Your task to perform on an android device: visit the assistant section in the google photos Image 0: 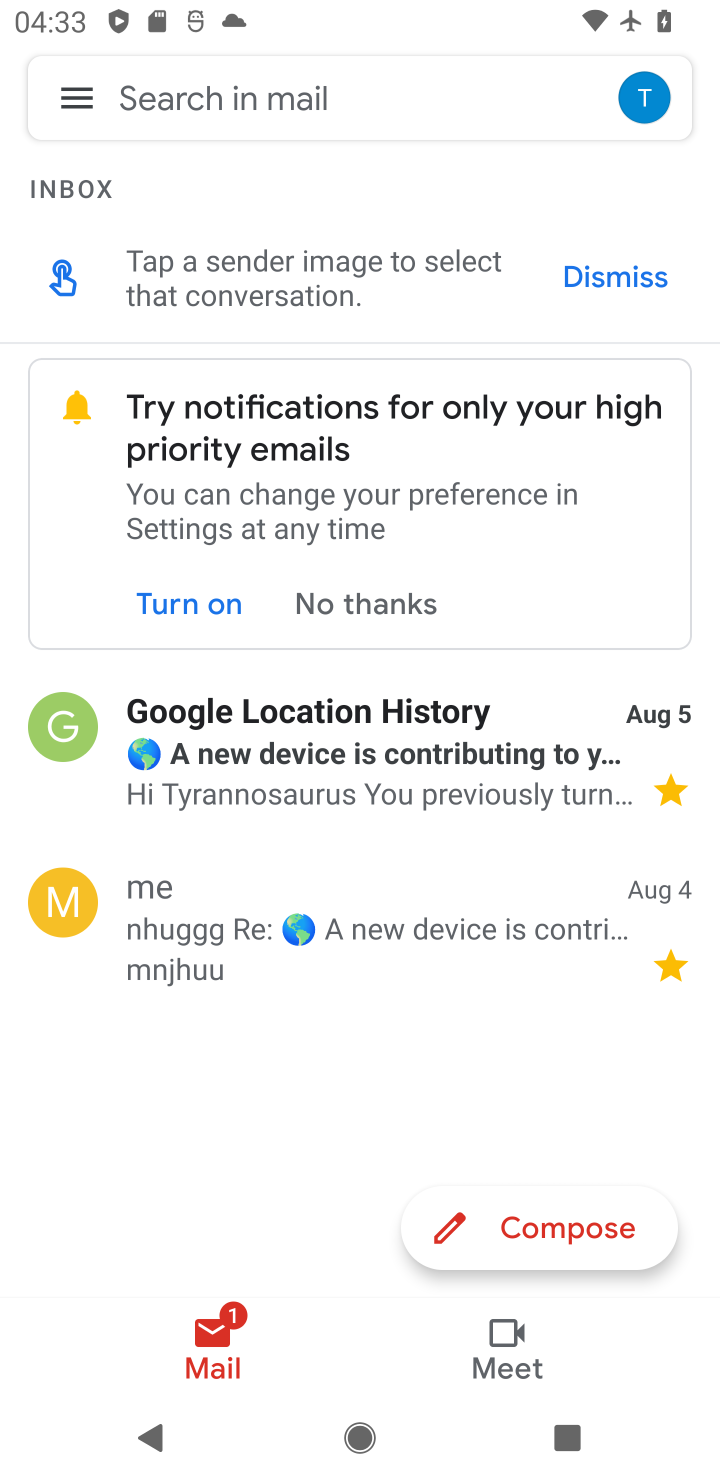
Step 0: press home button
Your task to perform on an android device: visit the assistant section in the google photos Image 1: 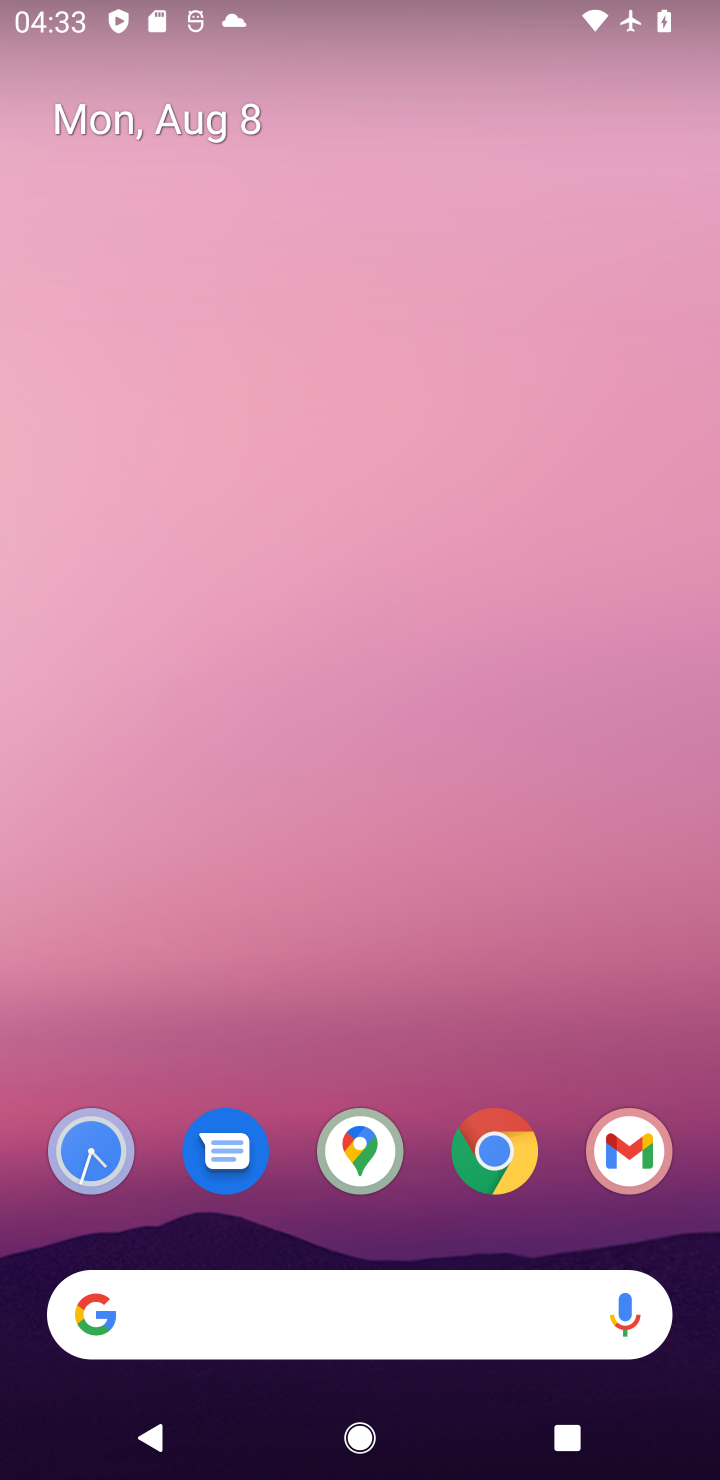
Step 1: drag from (307, 1056) to (291, 163)
Your task to perform on an android device: visit the assistant section in the google photos Image 2: 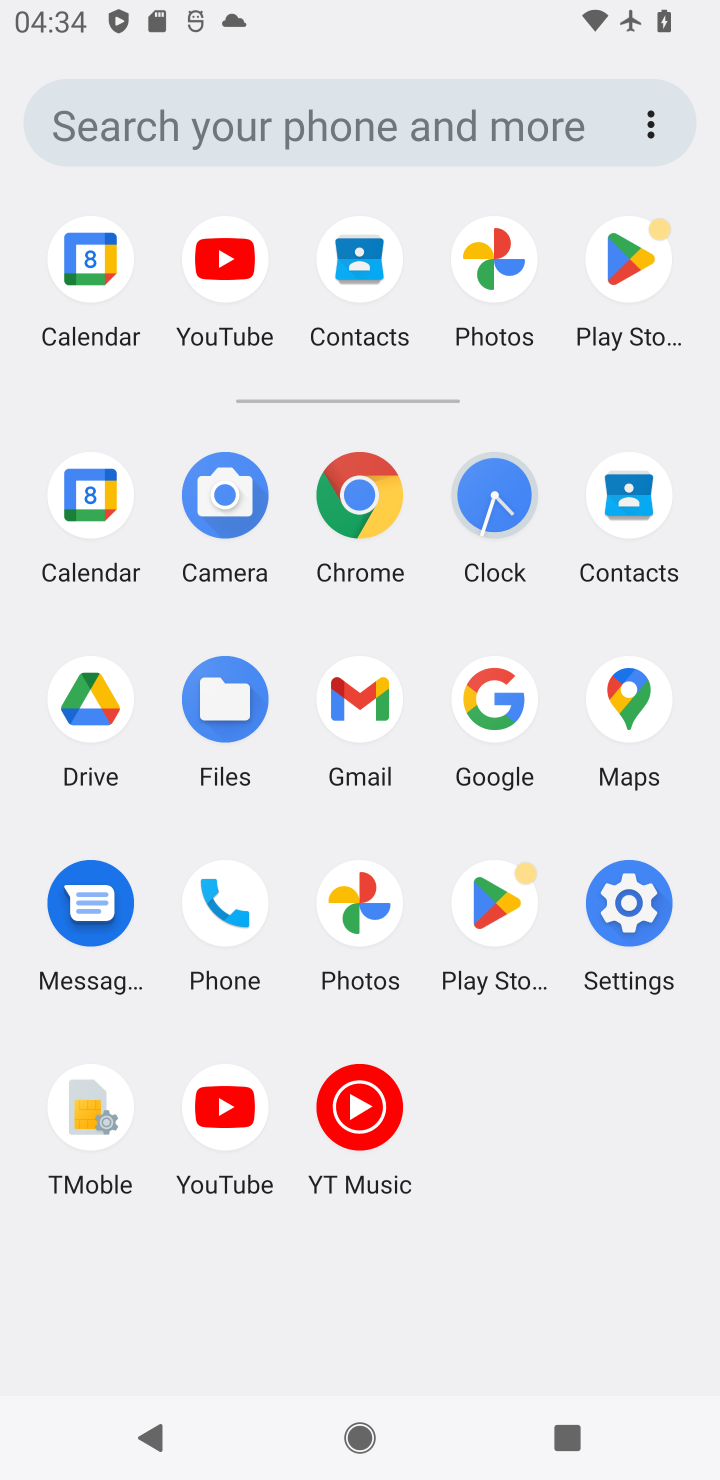
Step 2: click (503, 281)
Your task to perform on an android device: visit the assistant section in the google photos Image 3: 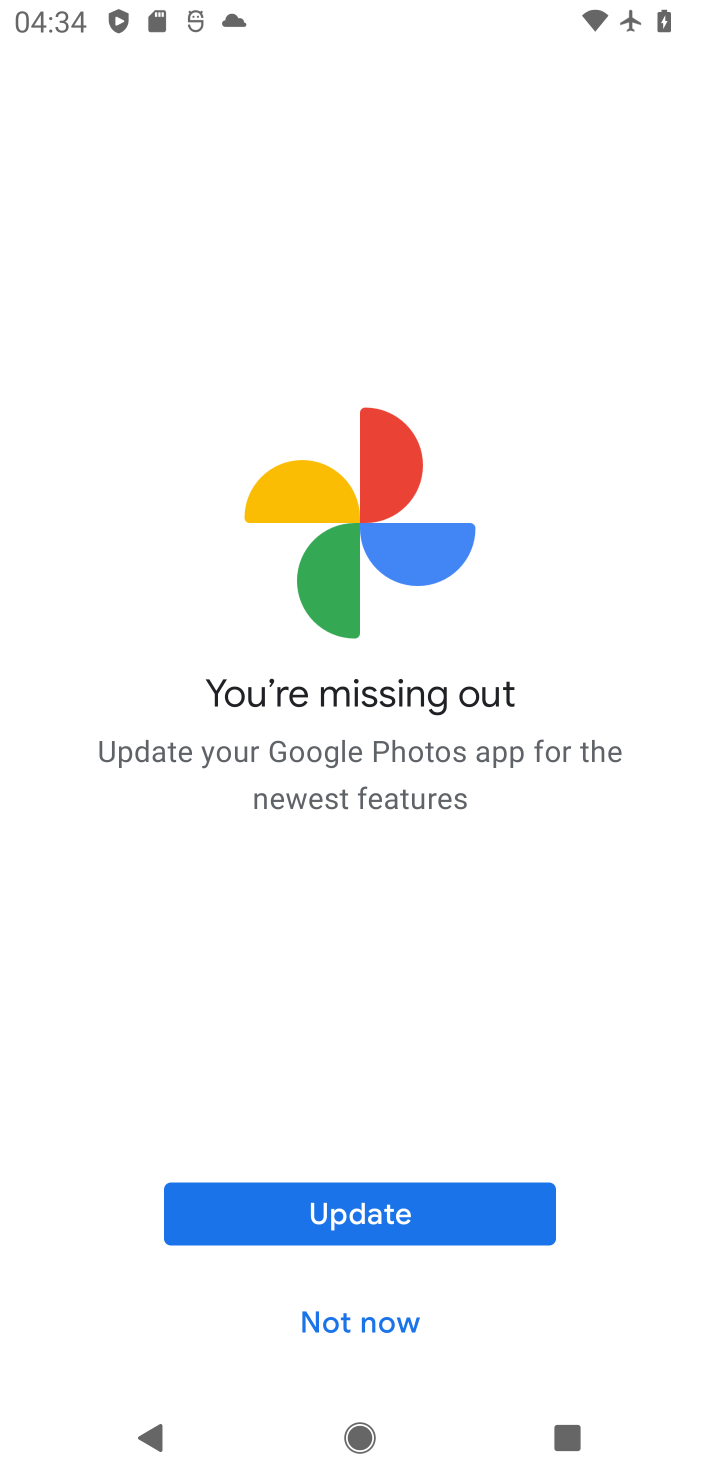
Step 3: click (355, 1313)
Your task to perform on an android device: visit the assistant section in the google photos Image 4: 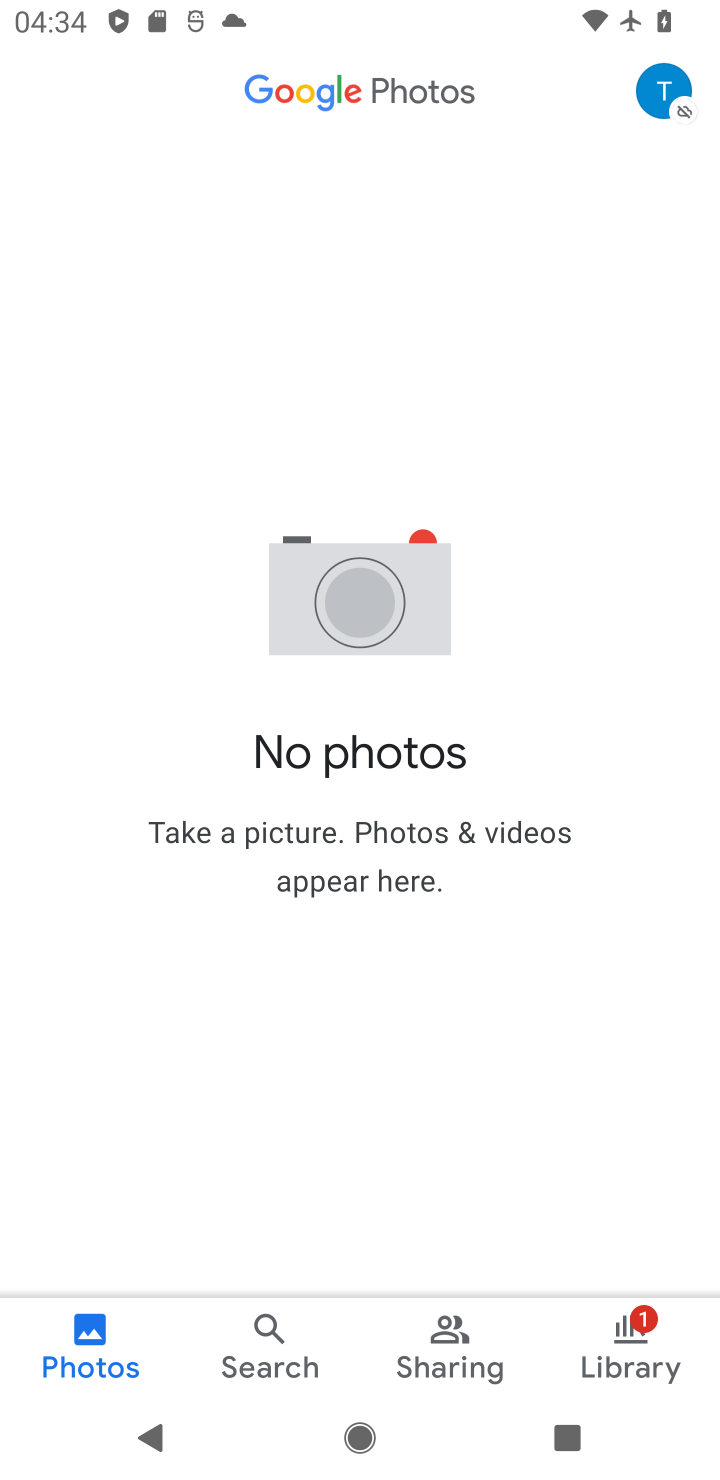
Step 4: click (67, 1343)
Your task to perform on an android device: visit the assistant section in the google photos Image 5: 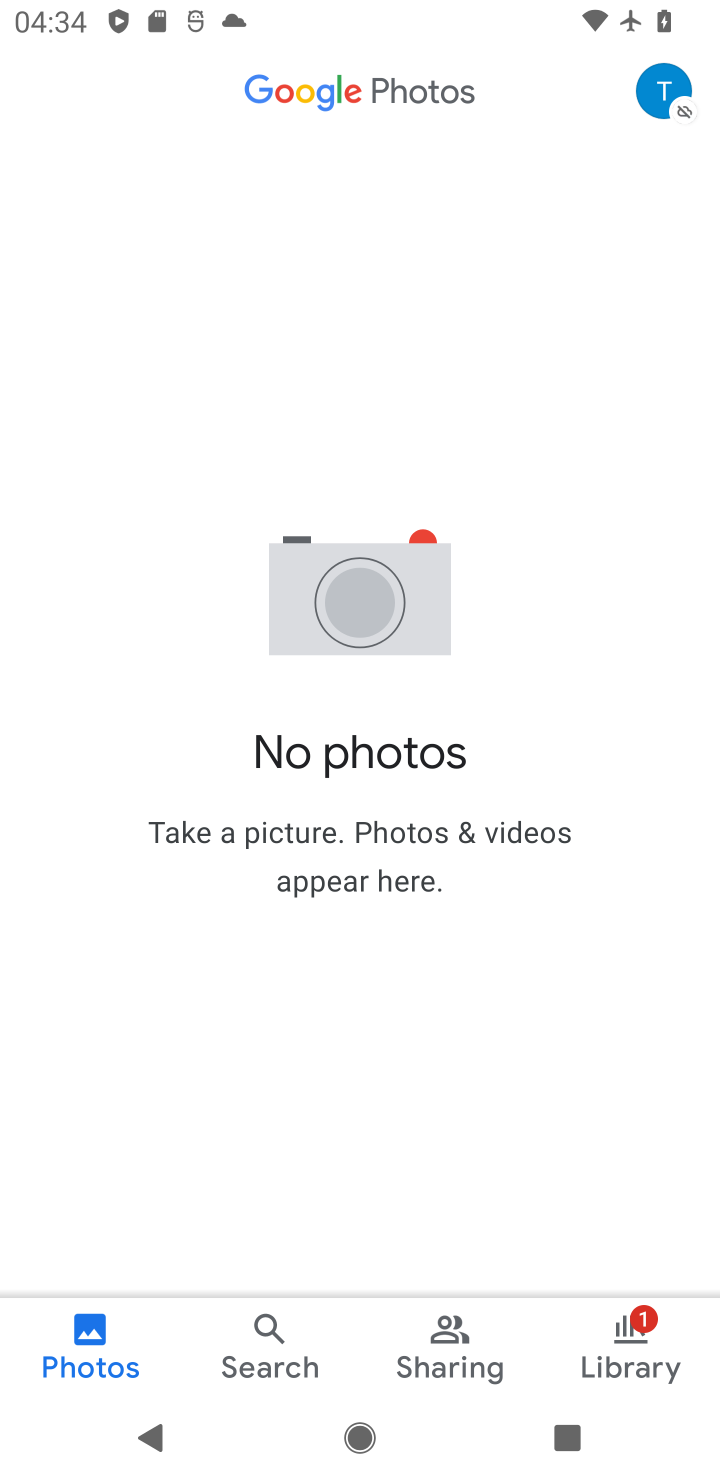
Step 5: click (687, 104)
Your task to perform on an android device: visit the assistant section in the google photos Image 6: 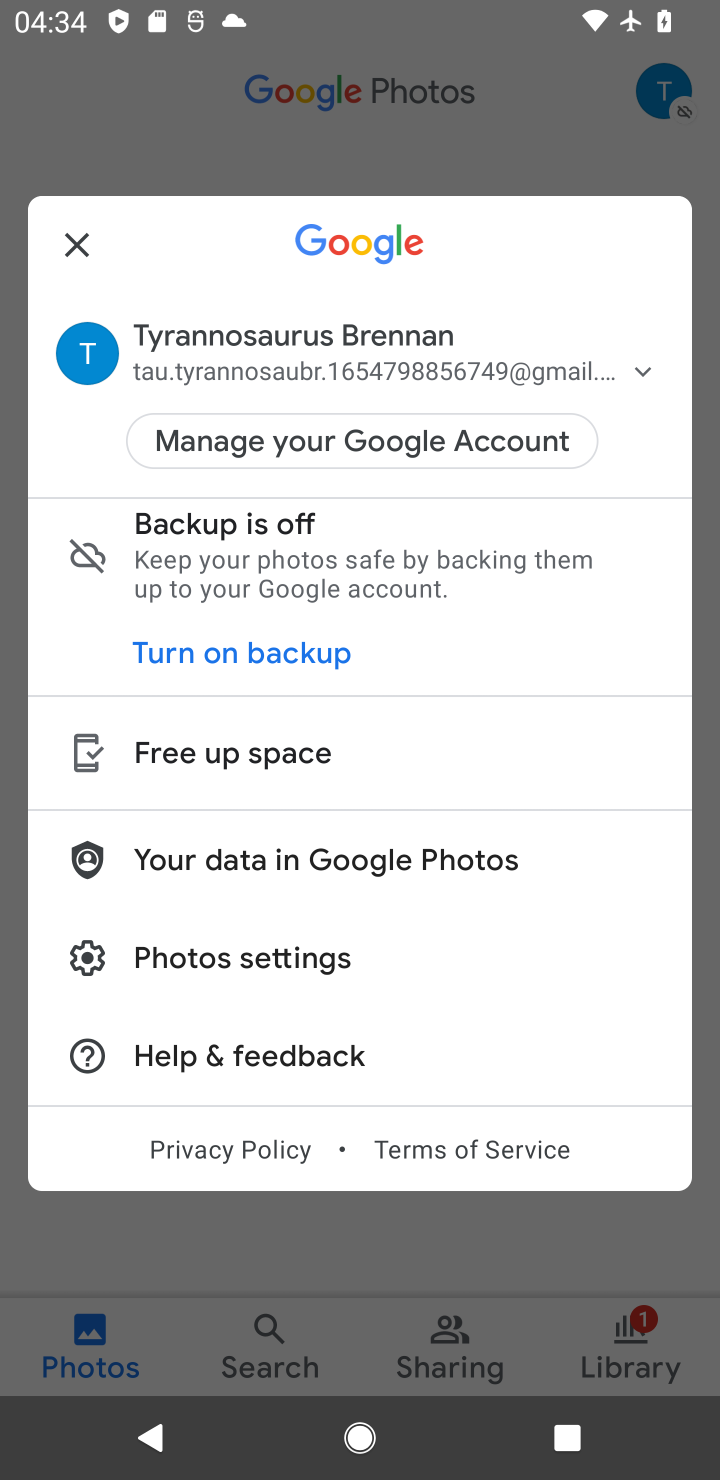
Step 6: click (54, 249)
Your task to perform on an android device: visit the assistant section in the google photos Image 7: 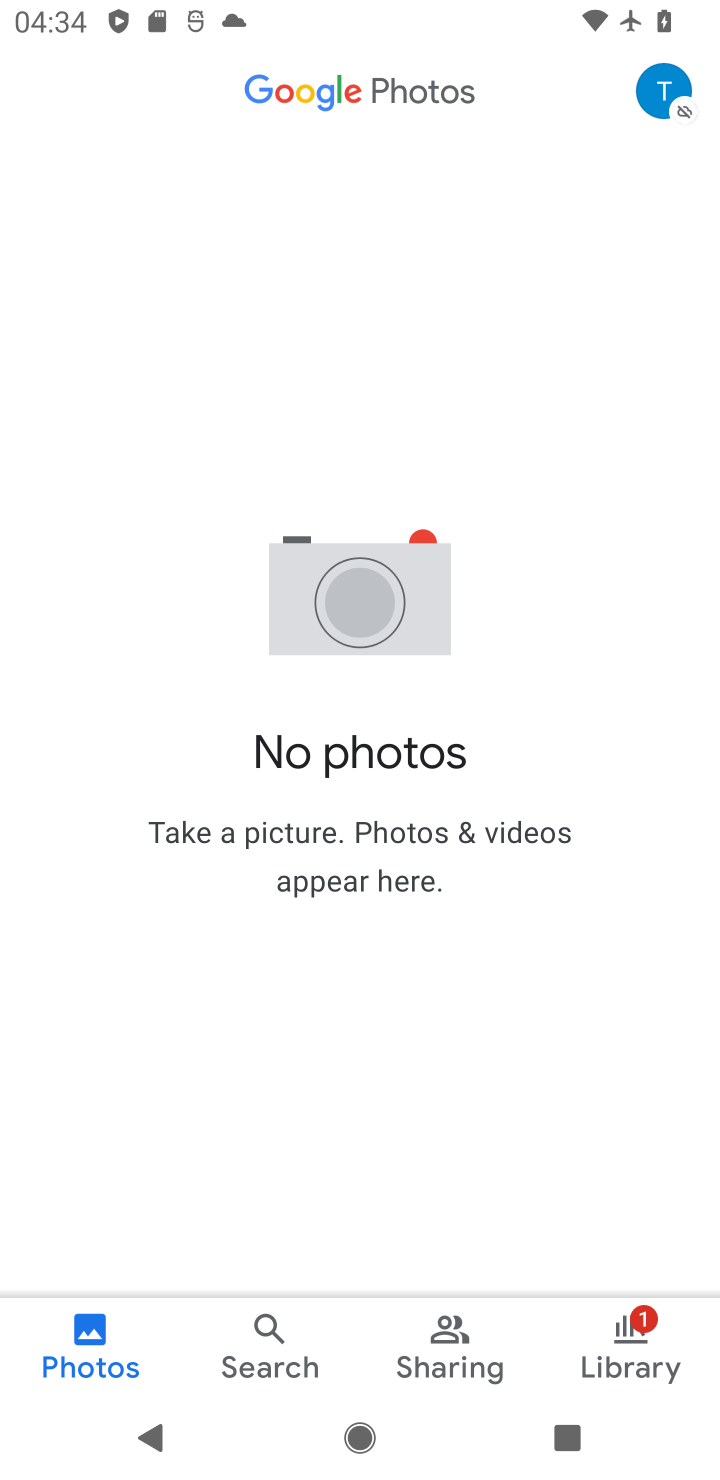
Step 7: task complete